Your task to perform on an android device: change text size in settings app Image 0: 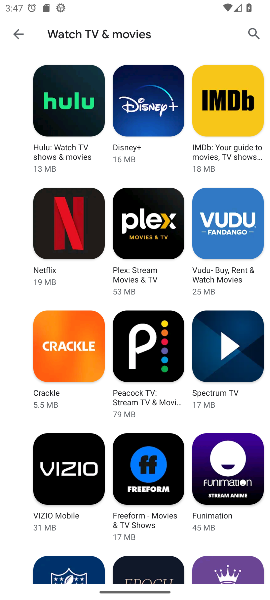
Step 0: press home button
Your task to perform on an android device: change text size in settings app Image 1: 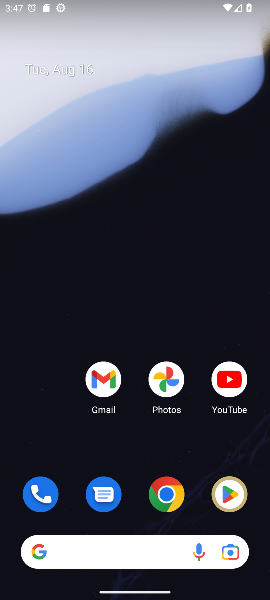
Step 1: drag from (157, 506) to (187, 12)
Your task to perform on an android device: change text size in settings app Image 2: 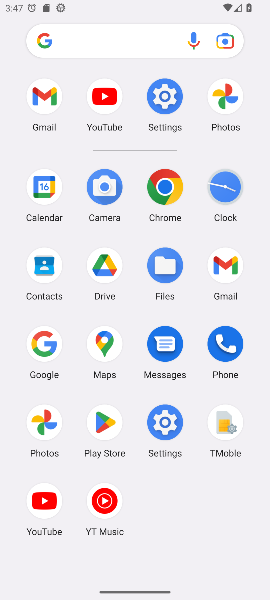
Step 2: click (161, 434)
Your task to perform on an android device: change text size in settings app Image 3: 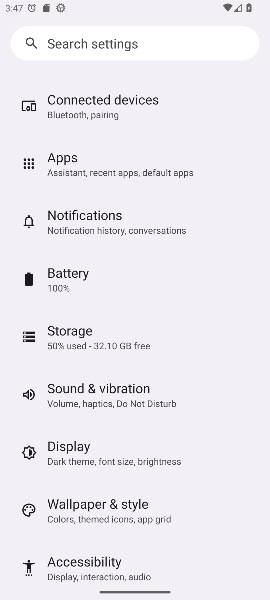
Step 3: click (66, 468)
Your task to perform on an android device: change text size in settings app Image 4: 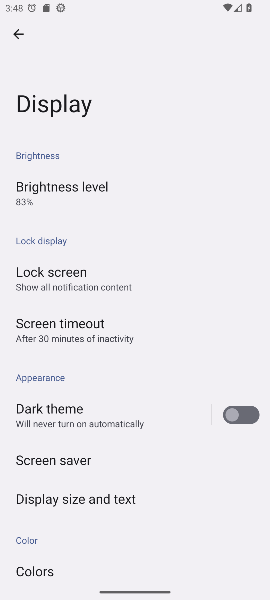
Step 4: drag from (66, 468) to (85, 37)
Your task to perform on an android device: change text size in settings app Image 5: 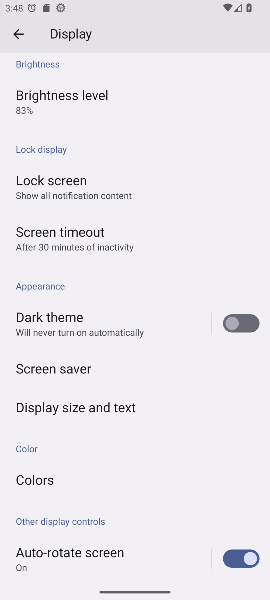
Step 5: drag from (76, 188) to (62, 268)
Your task to perform on an android device: change text size in settings app Image 6: 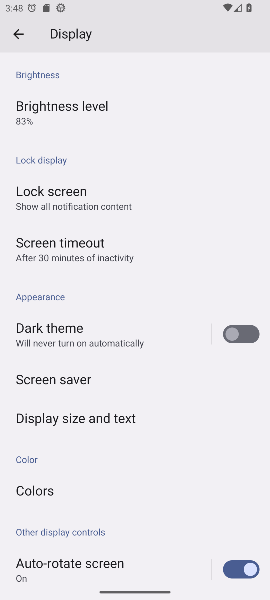
Step 6: click (65, 423)
Your task to perform on an android device: change text size in settings app Image 7: 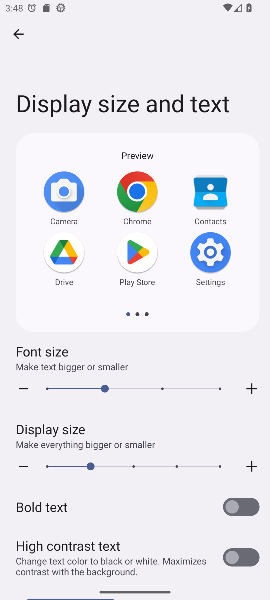
Step 7: click (157, 387)
Your task to perform on an android device: change text size in settings app Image 8: 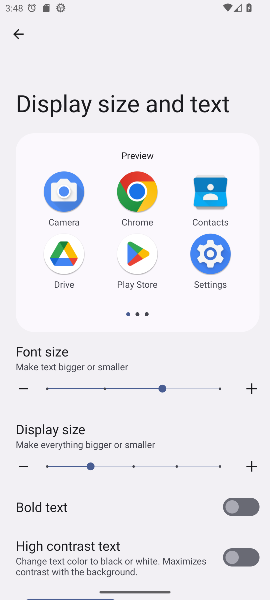
Step 8: task complete